Your task to perform on an android device: Open maps Image 0: 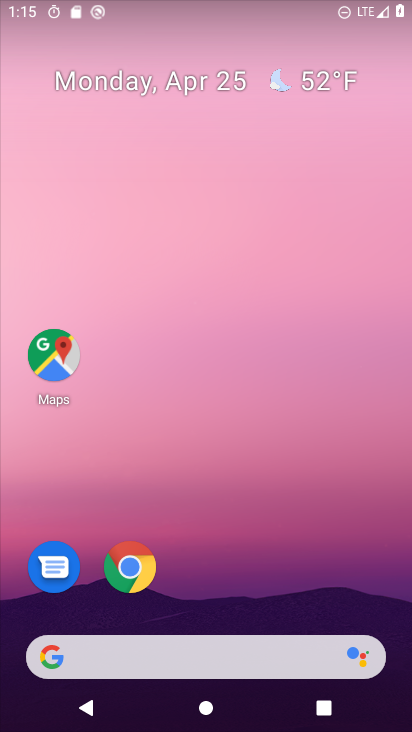
Step 0: click (62, 361)
Your task to perform on an android device: Open maps Image 1: 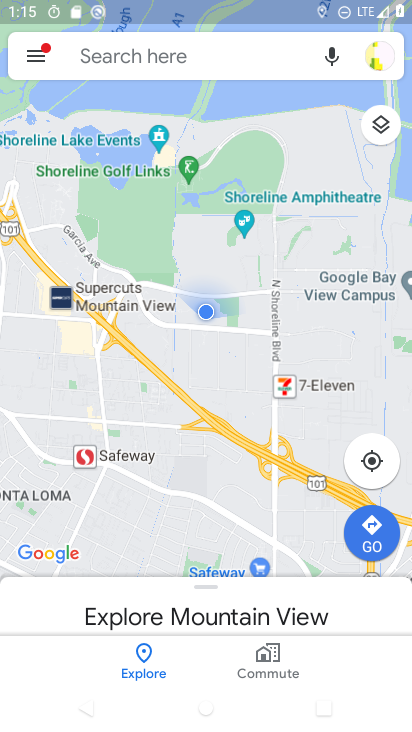
Step 1: task complete